Your task to perform on an android device: see sites visited before in the chrome app Image 0: 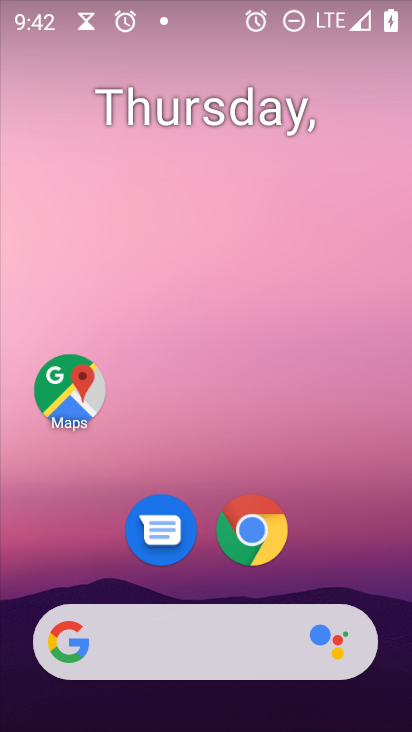
Step 0: drag from (341, 548) to (246, 36)
Your task to perform on an android device: see sites visited before in the chrome app Image 1: 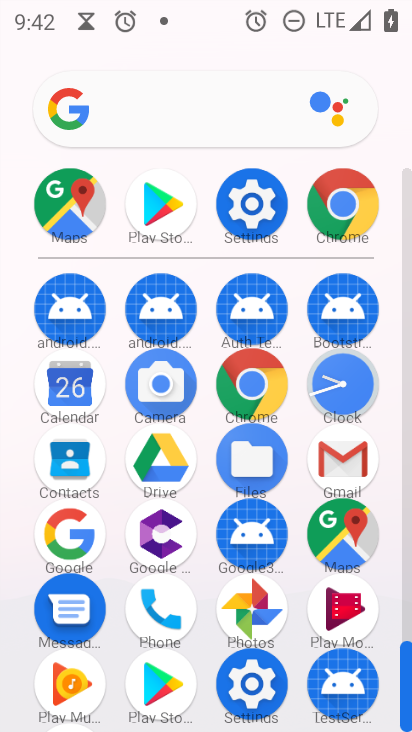
Step 1: drag from (24, 537) to (16, 239)
Your task to perform on an android device: see sites visited before in the chrome app Image 2: 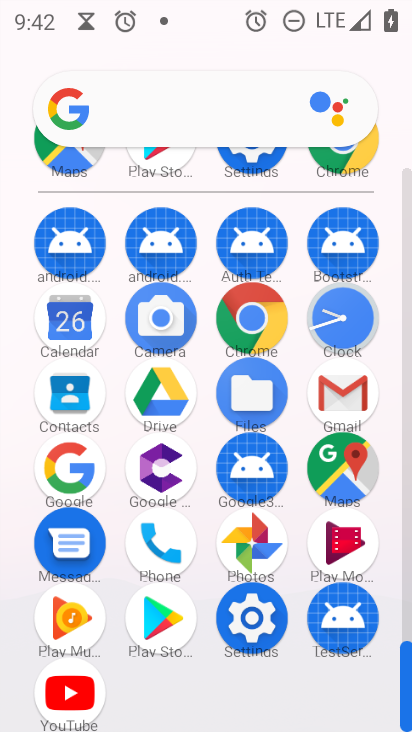
Step 2: click (247, 315)
Your task to perform on an android device: see sites visited before in the chrome app Image 3: 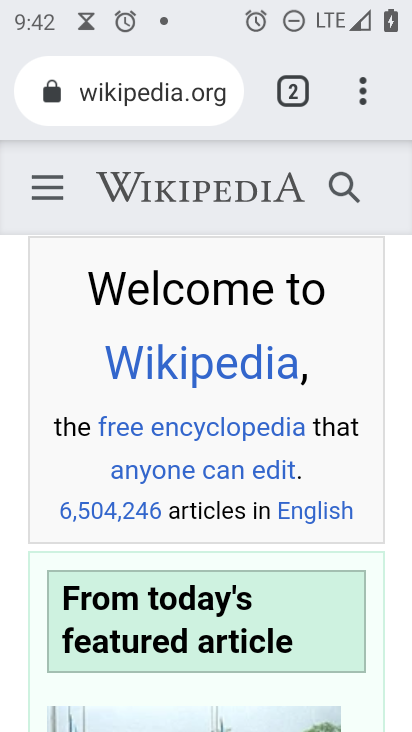
Step 3: task complete